Your task to perform on an android device: toggle priority inbox in the gmail app Image 0: 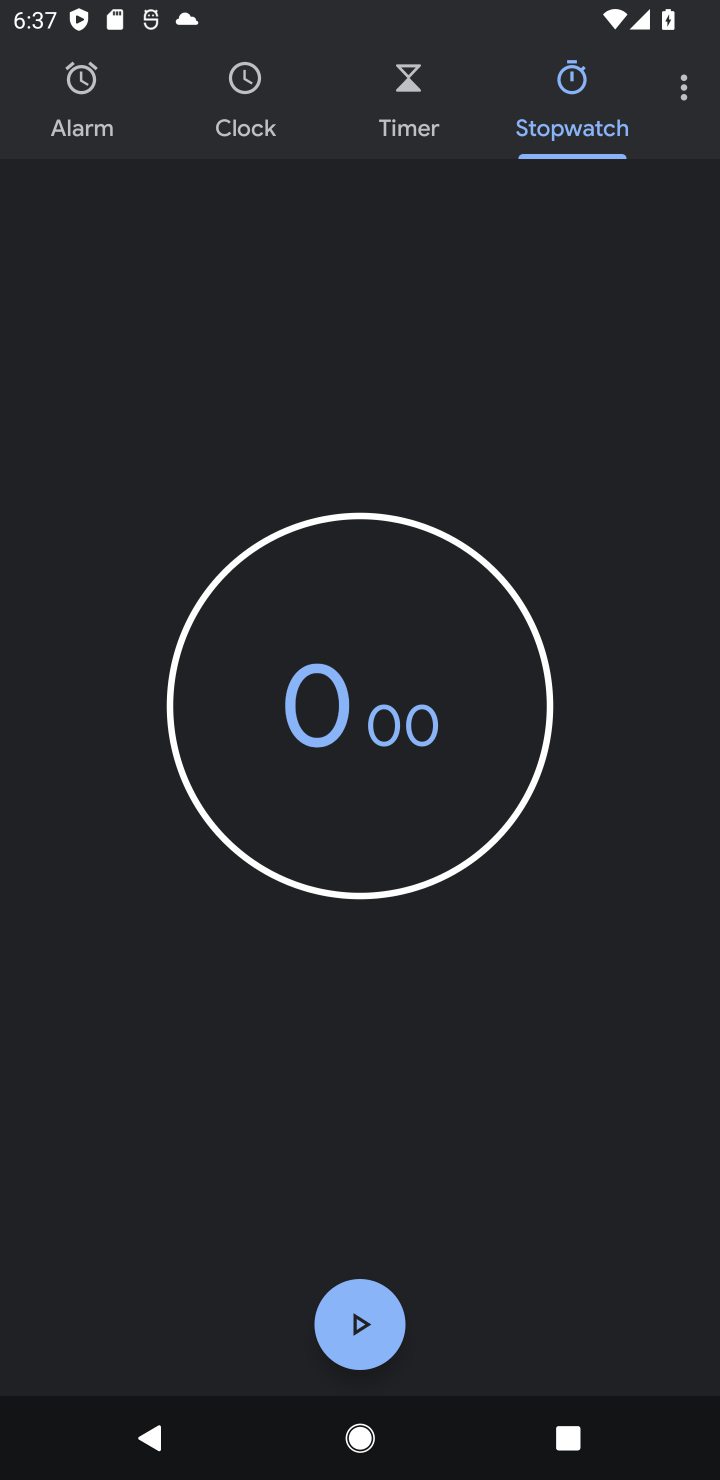
Step 0: press home button
Your task to perform on an android device: toggle priority inbox in the gmail app Image 1: 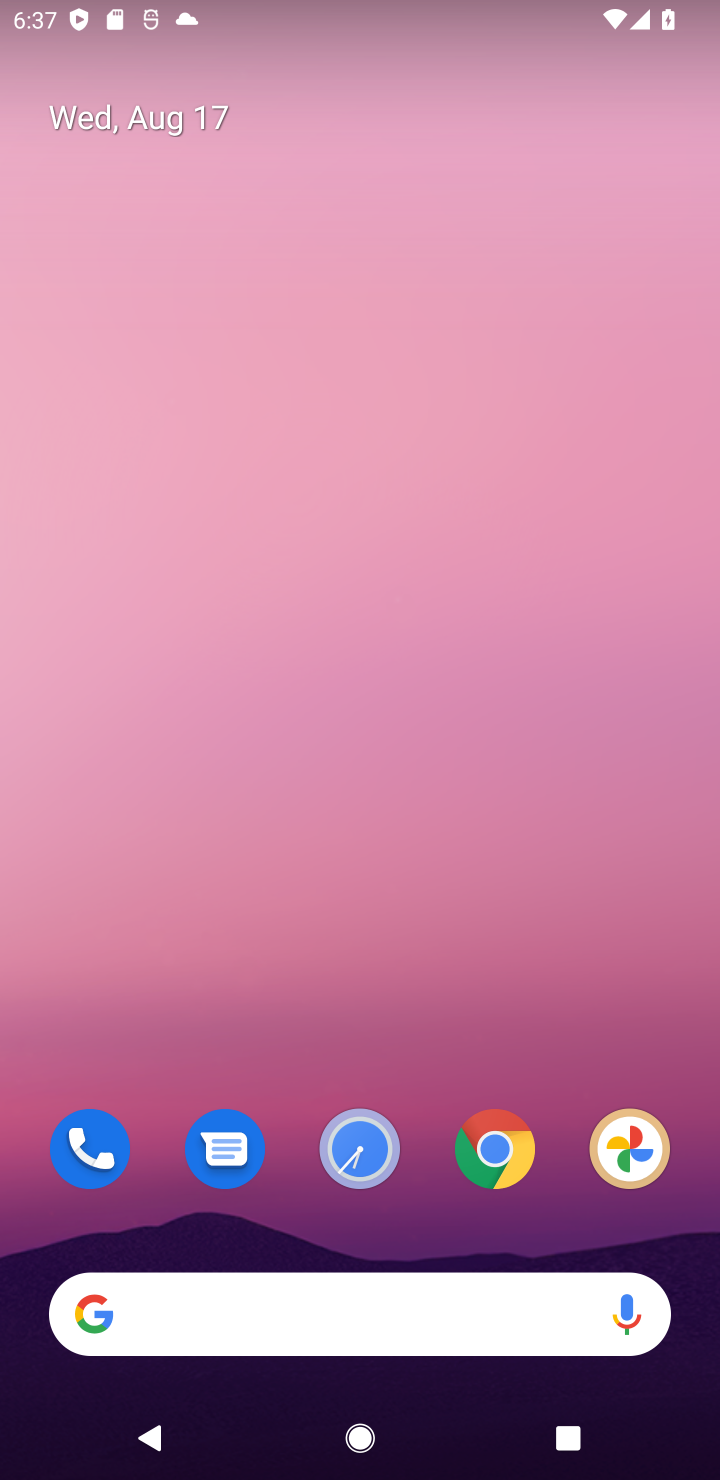
Step 1: drag from (435, 1090) to (486, 45)
Your task to perform on an android device: toggle priority inbox in the gmail app Image 2: 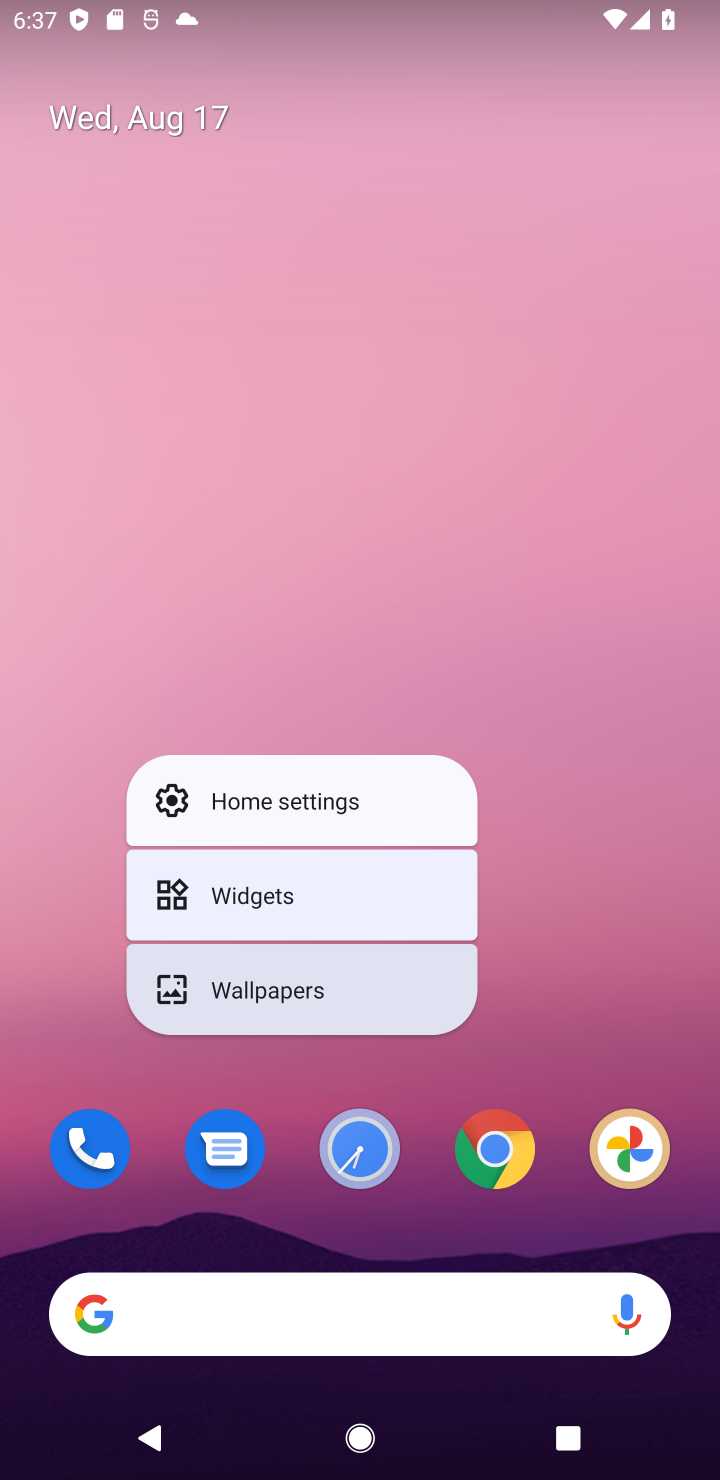
Step 2: click (582, 417)
Your task to perform on an android device: toggle priority inbox in the gmail app Image 3: 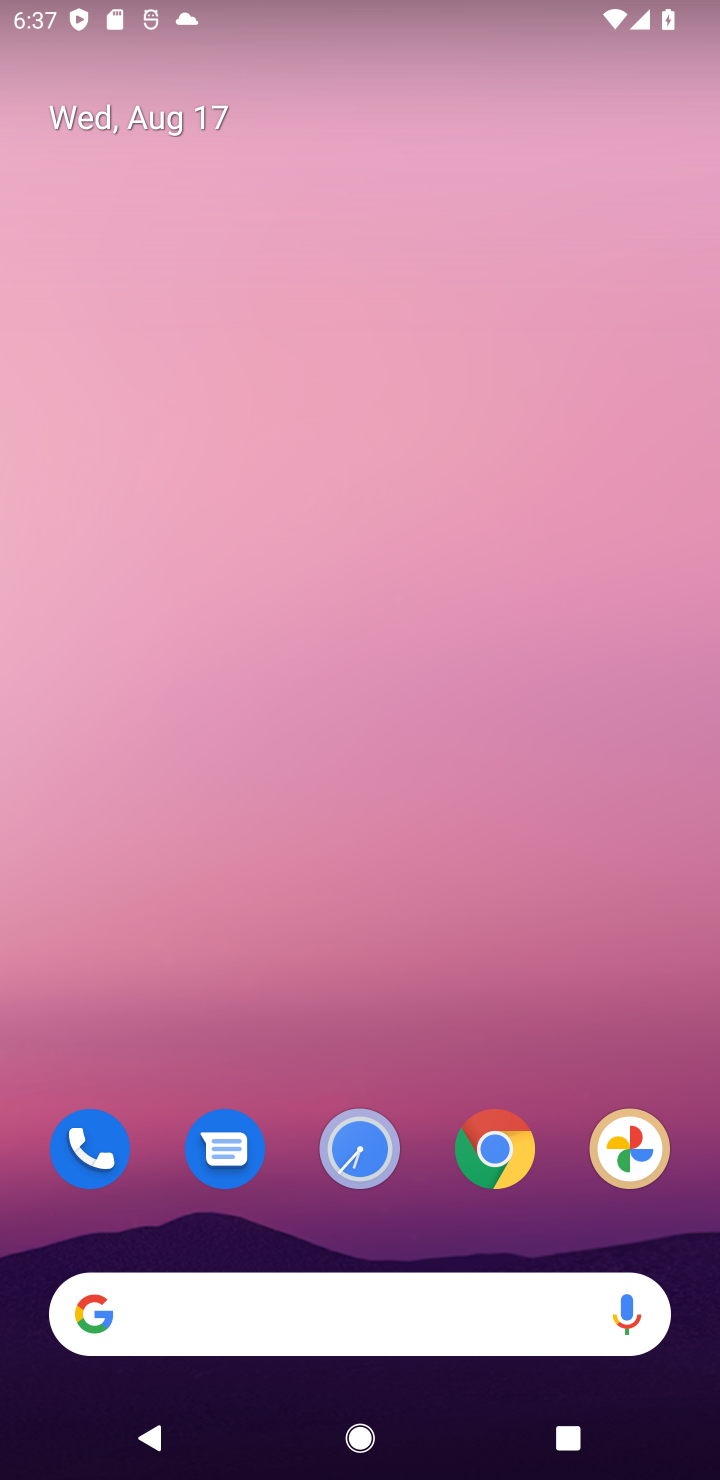
Step 3: drag from (278, 1029) to (269, 13)
Your task to perform on an android device: toggle priority inbox in the gmail app Image 4: 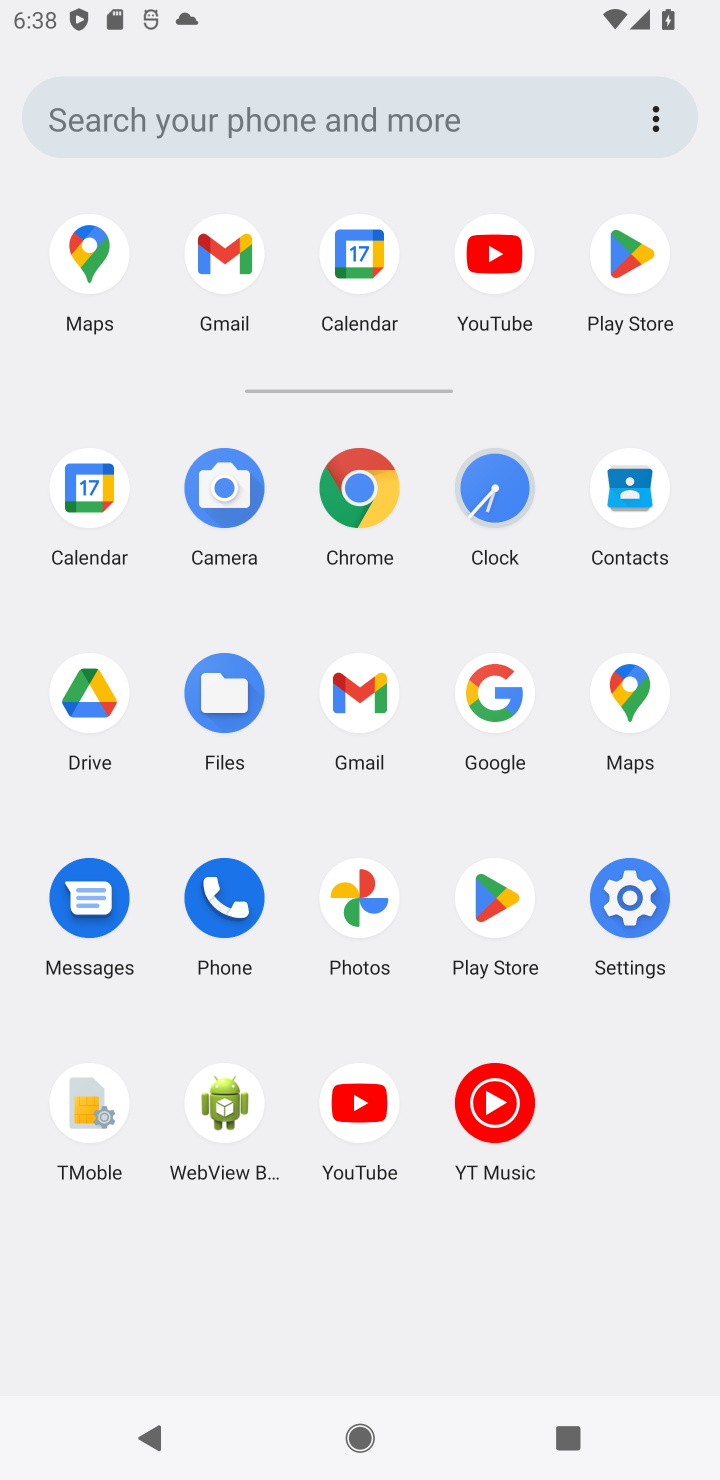
Step 4: click (365, 694)
Your task to perform on an android device: toggle priority inbox in the gmail app Image 5: 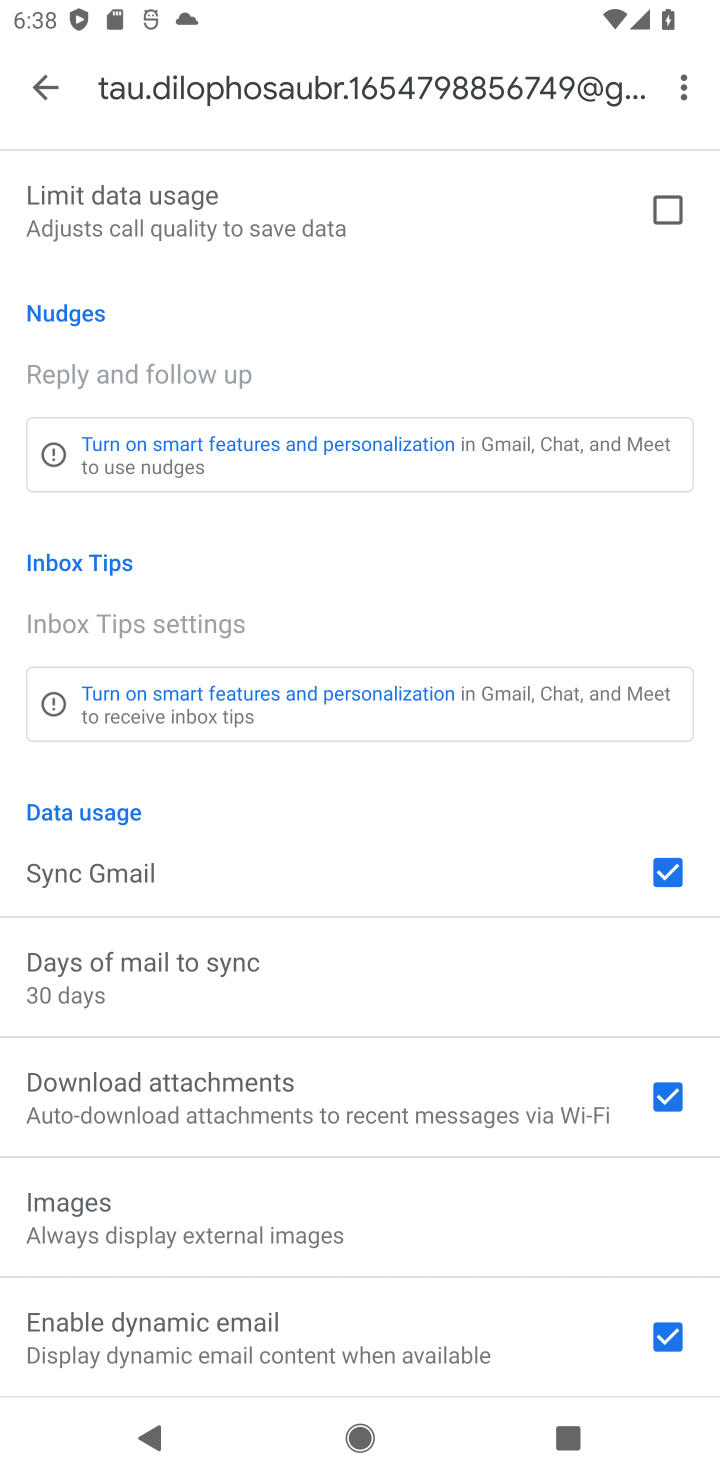
Step 5: drag from (295, 367) to (310, 1232)
Your task to perform on an android device: toggle priority inbox in the gmail app Image 6: 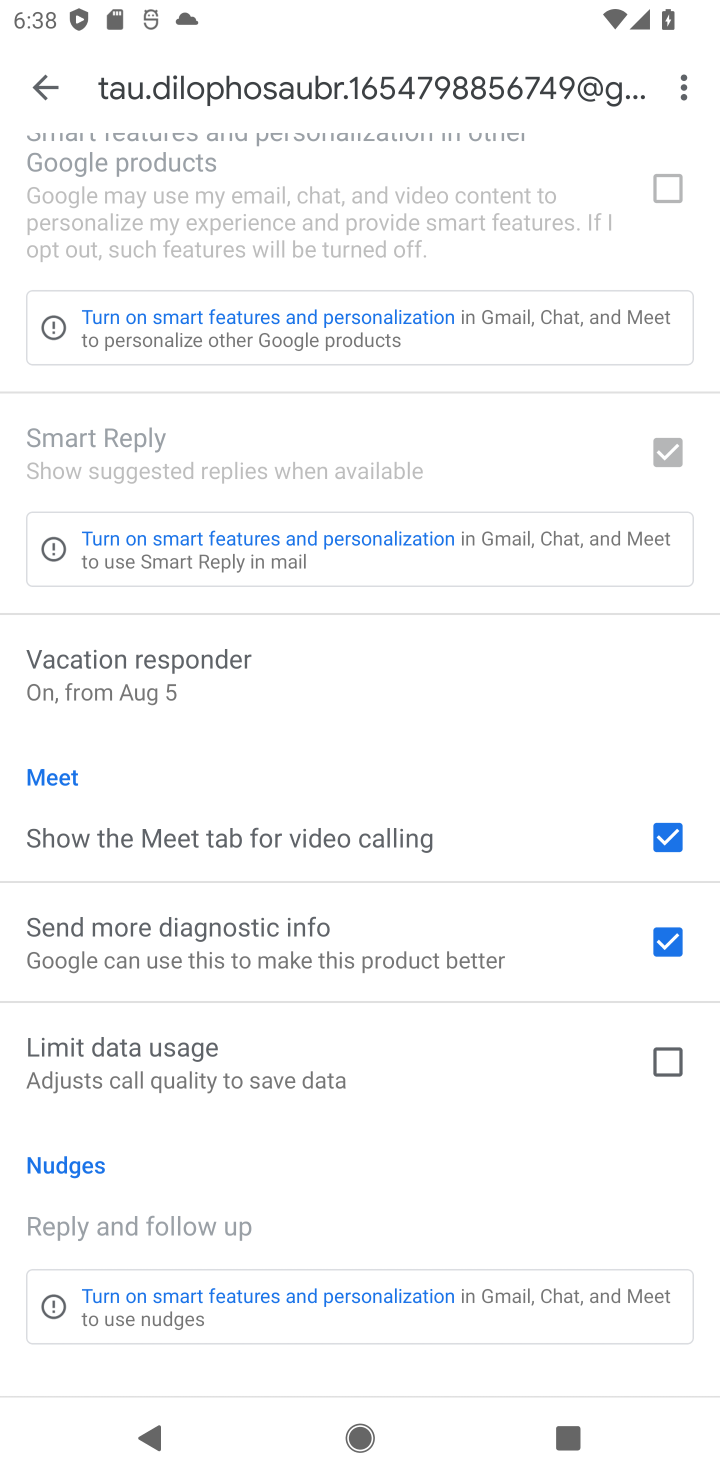
Step 6: drag from (338, 189) to (310, 662)
Your task to perform on an android device: toggle priority inbox in the gmail app Image 7: 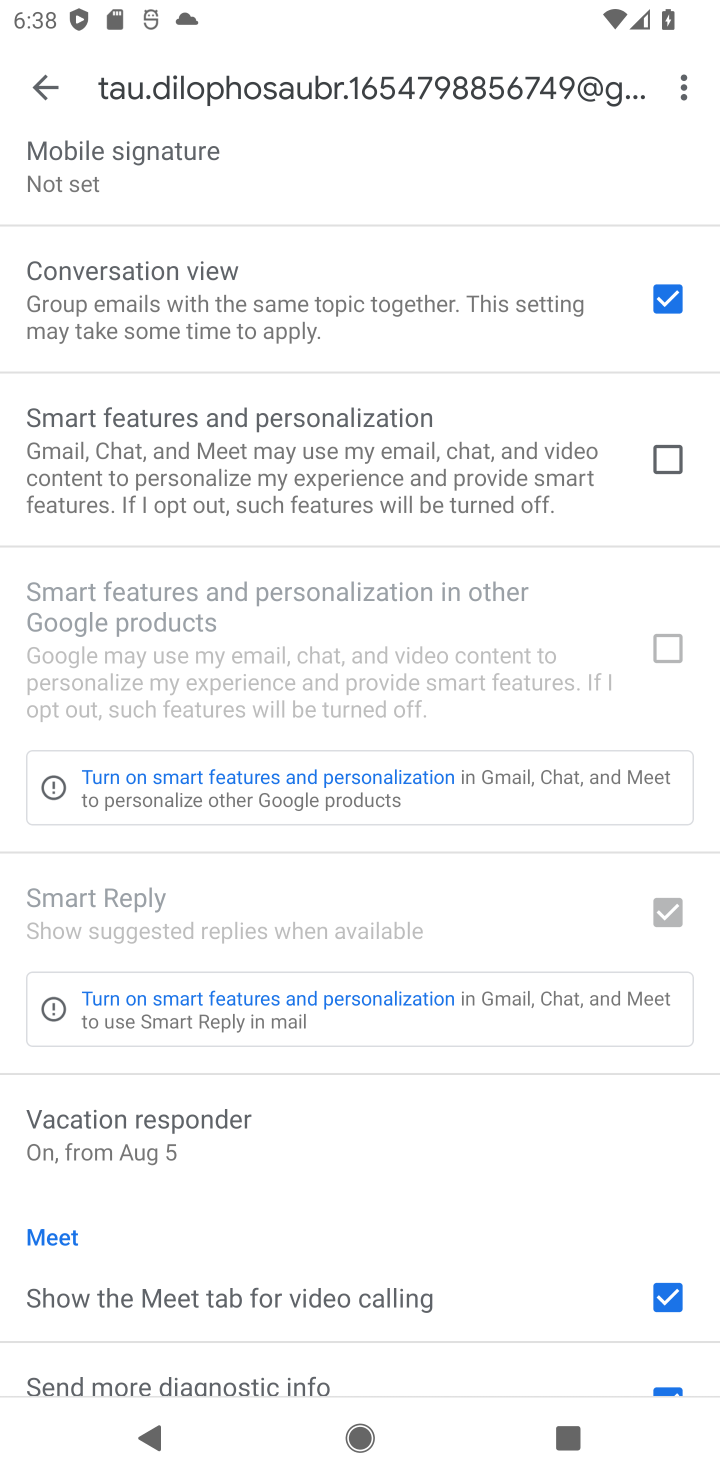
Step 7: drag from (266, 178) to (362, 947)
Your task to perform on an android device: toggle priority inbox in the gmail app Image 8: 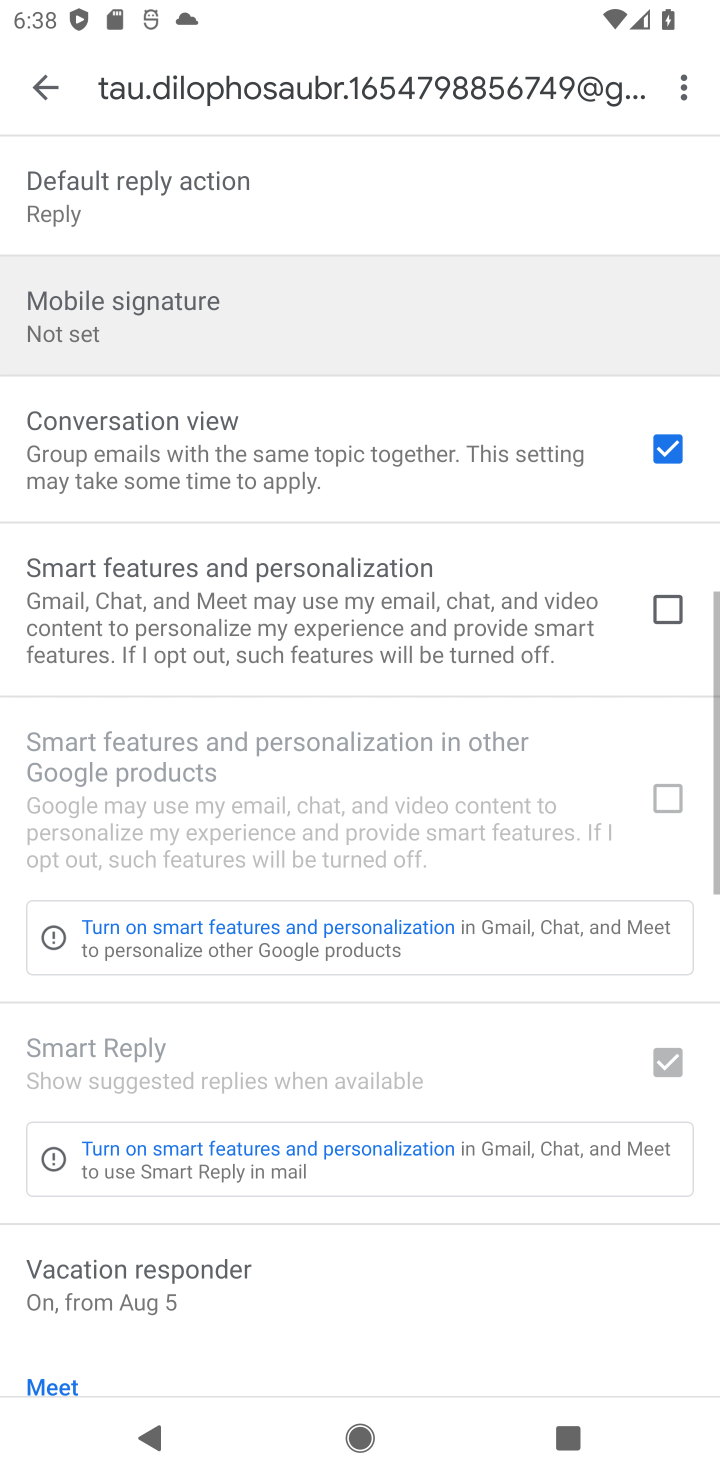
Step 8: click (362, 947)
Your task to perform on an android device: toggle priority inbox in the gmail app Image 9: 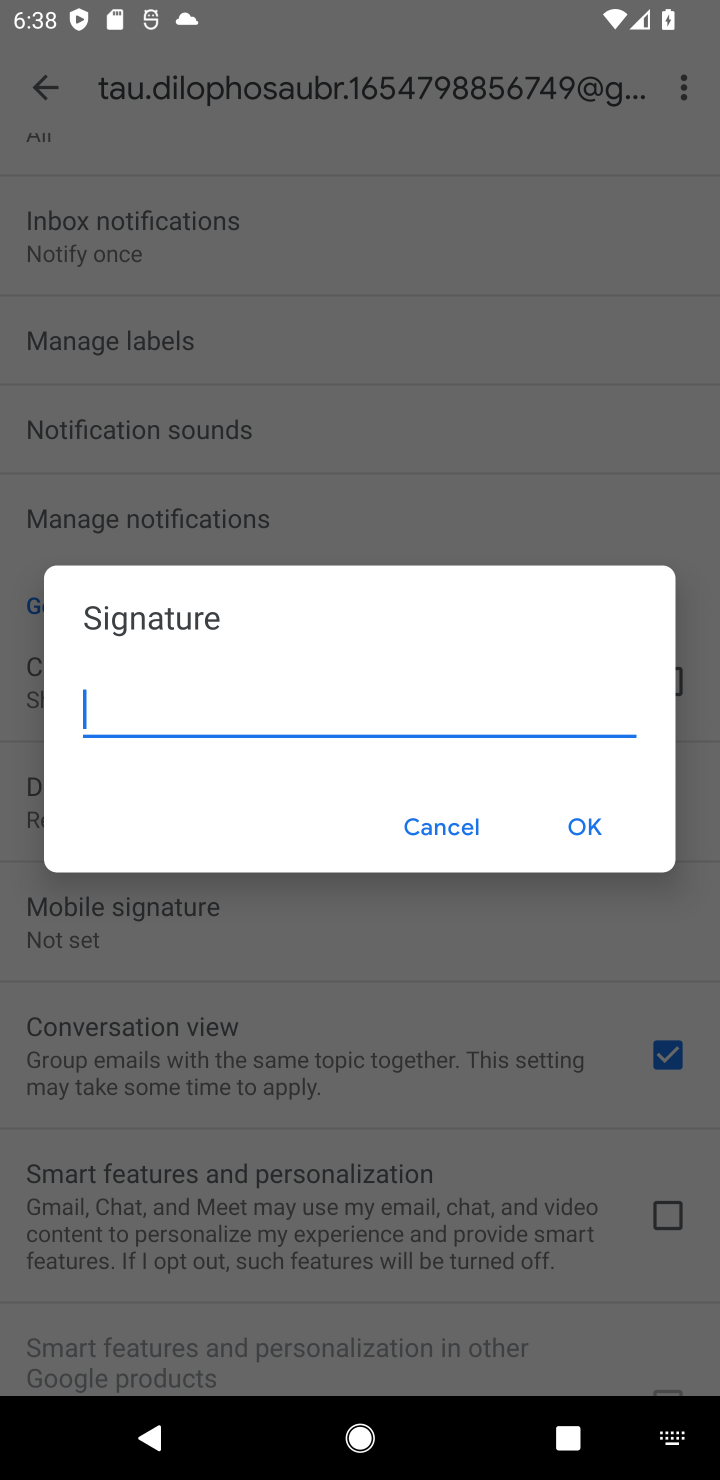
Step 9: click (439, 825)
Your task to perform on an android device: toggle priority inbox in the gmail app Image 10: 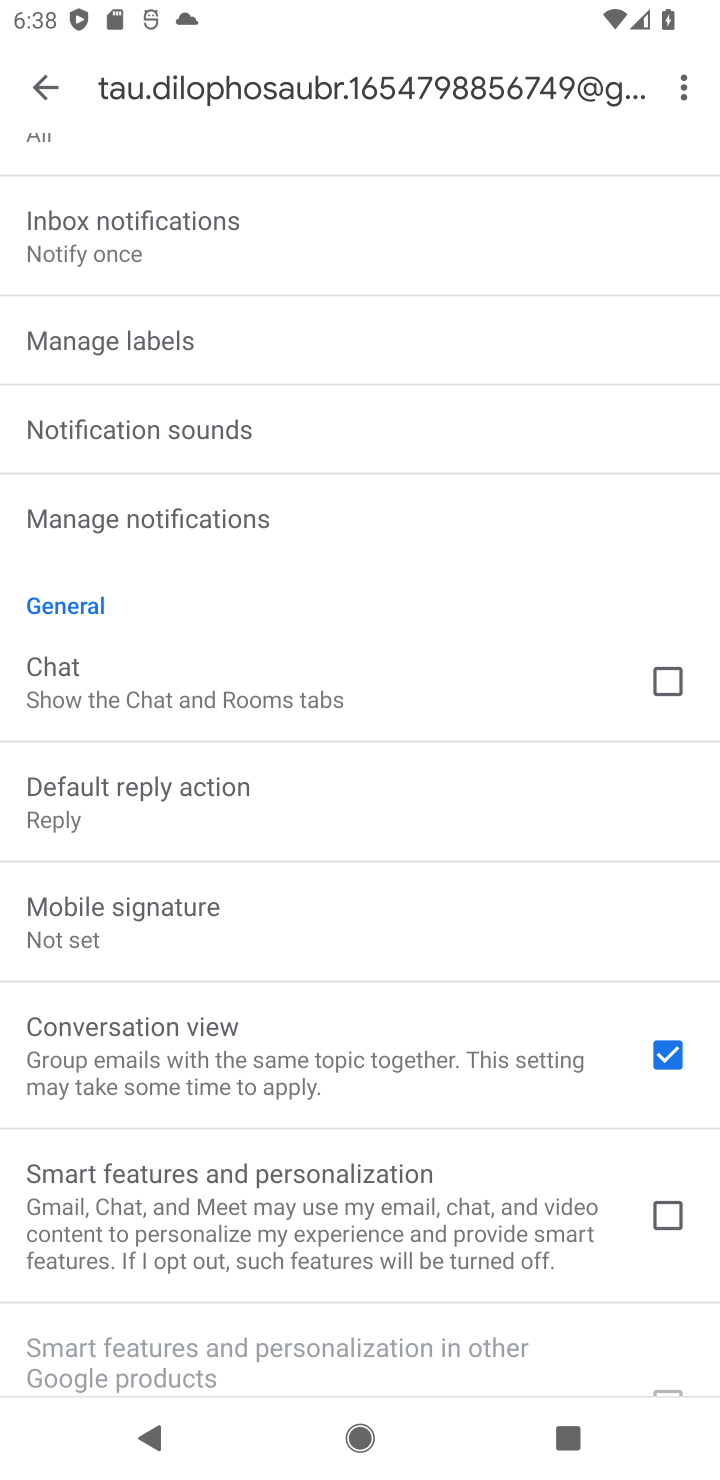
Step 10: drag from (362, 382) to (352, 792)
Your task to perform on an android device: toggle priority inbox in the gmail app Image 11: 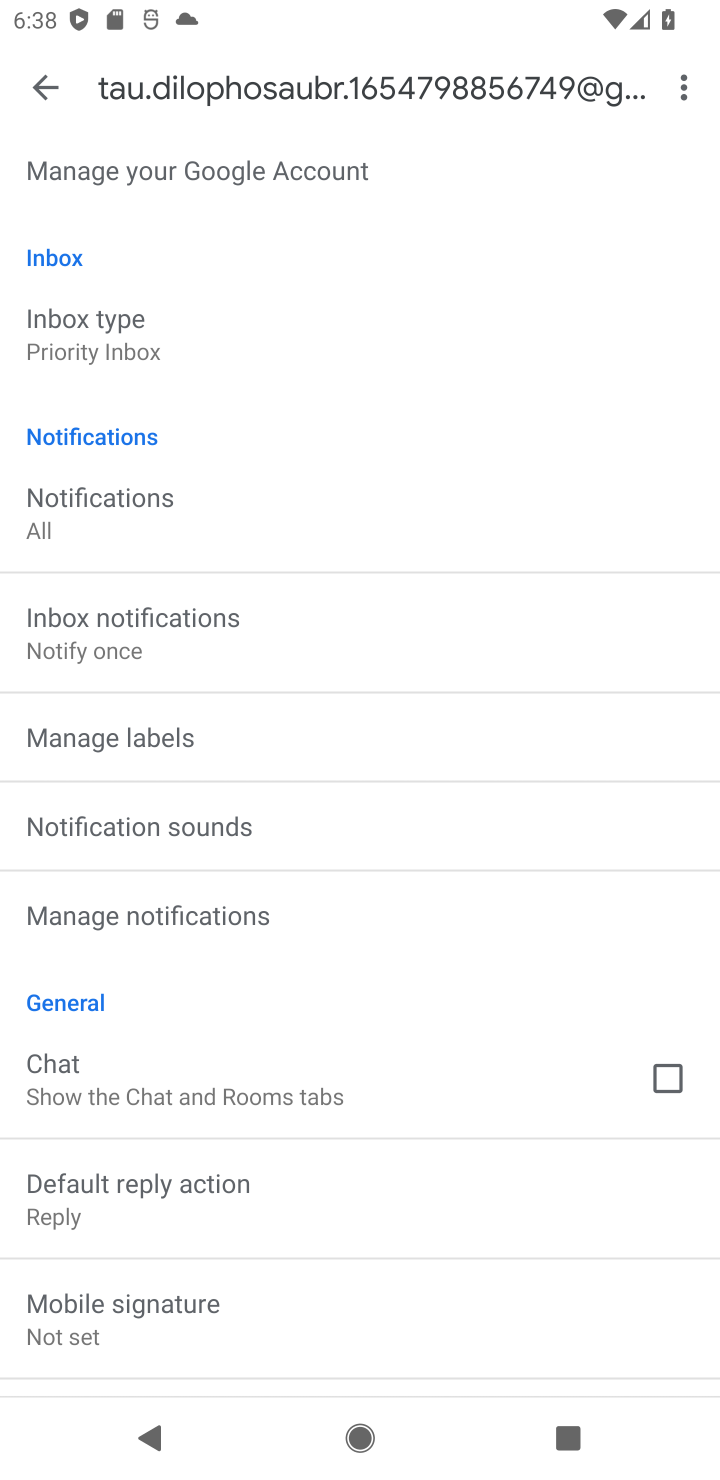
Step 11: click (91, 336)
Your task to perform on an android device: toggle priority inbox in the gmail app Image 12: 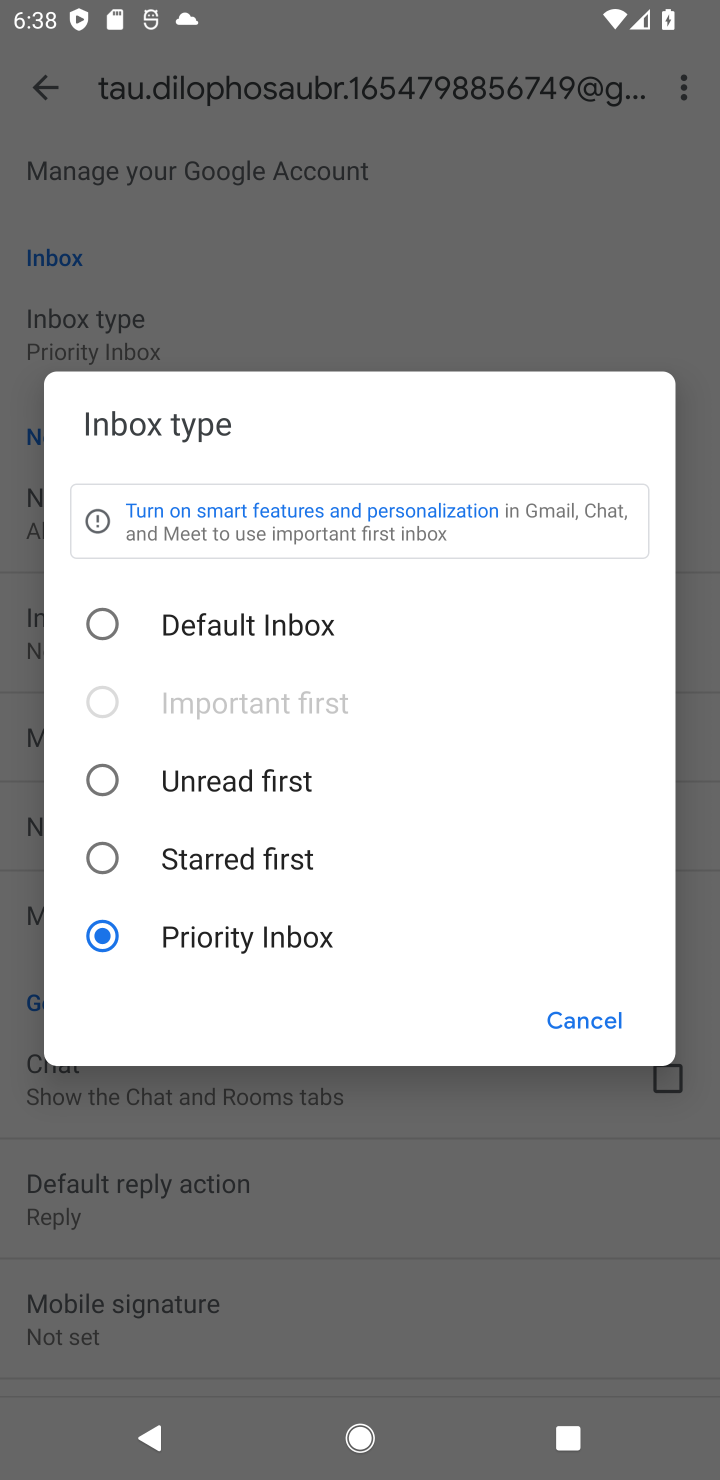
Step 12: click (101, 621)
Your task to perform on an android device: toggle priority inbox in the gmail app Image 13: 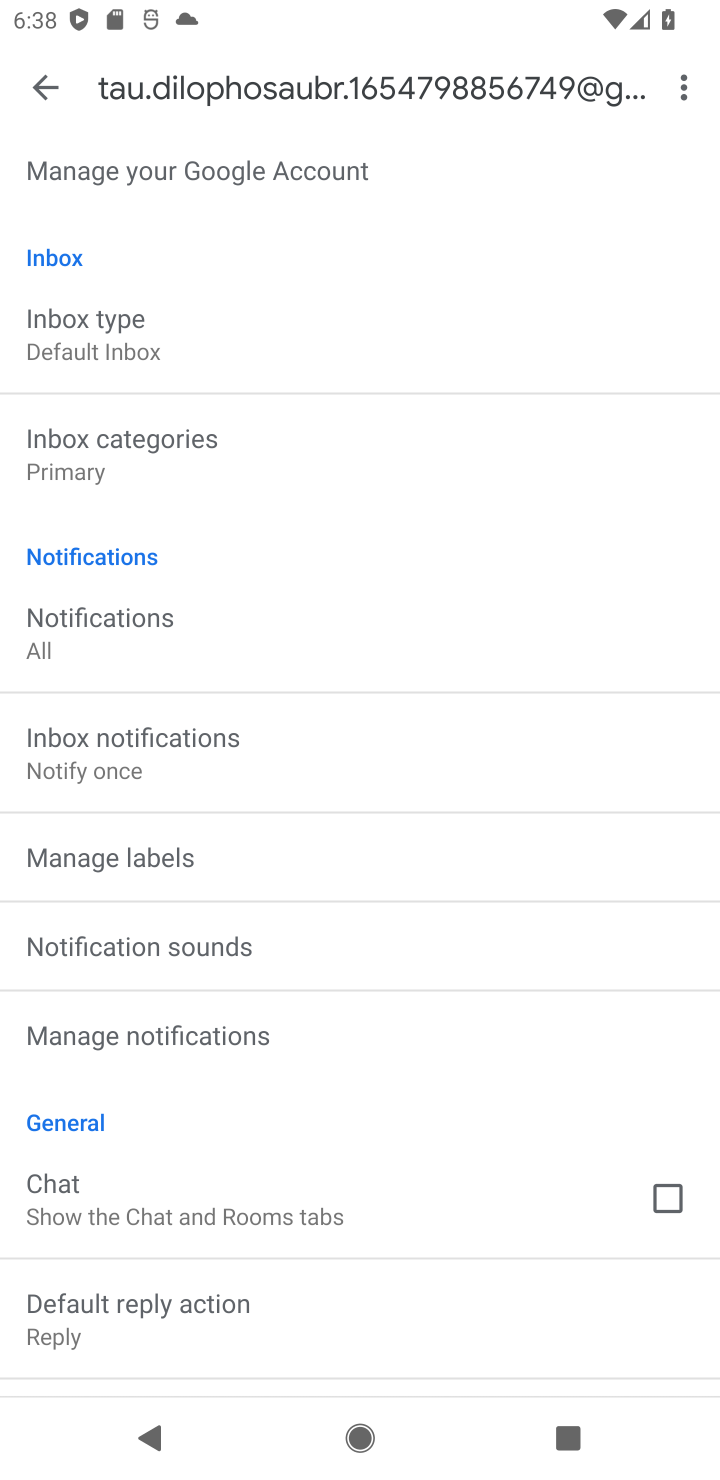
Step 13: task complete